Your task to perform on an android device: toggle improve location accuracy Image 0: 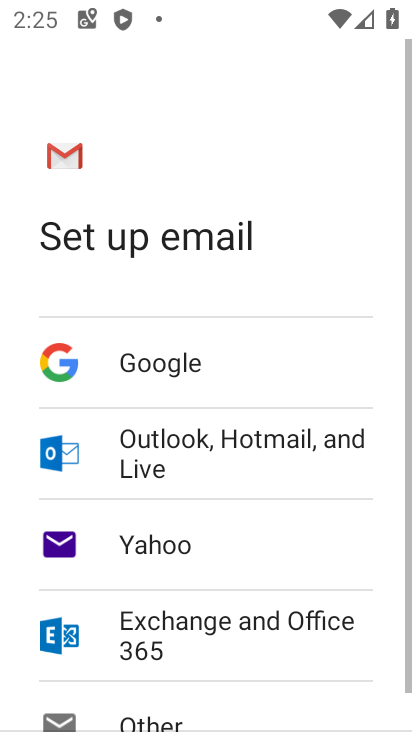
Step 0: press home button
Your task to perform on an android device: toggle improve location accuracy Image 1: 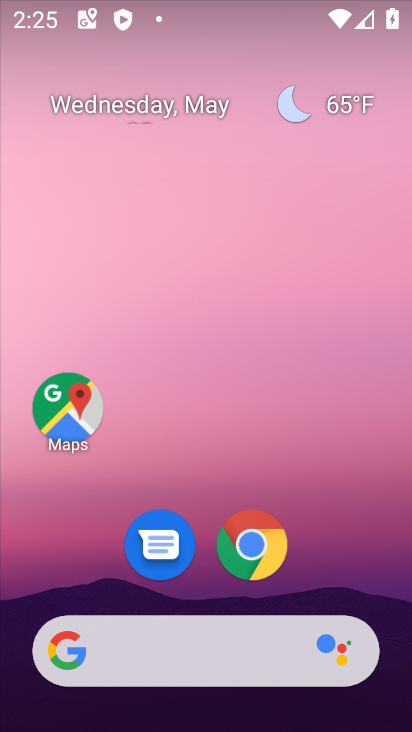
Step 1: drag from (332, 522) to (130, 15)
Your task to perform on an android device: toggle improve location accuracy Image 2: 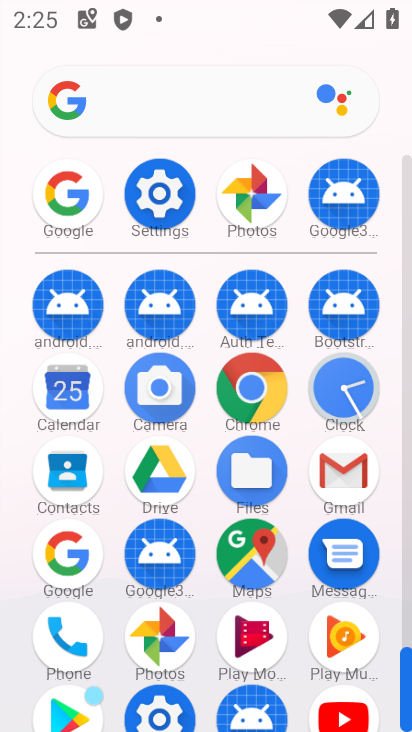
Step 2: click (177, 198)
Your task to perform on an android device: toggle improve location accuracy Image 3: 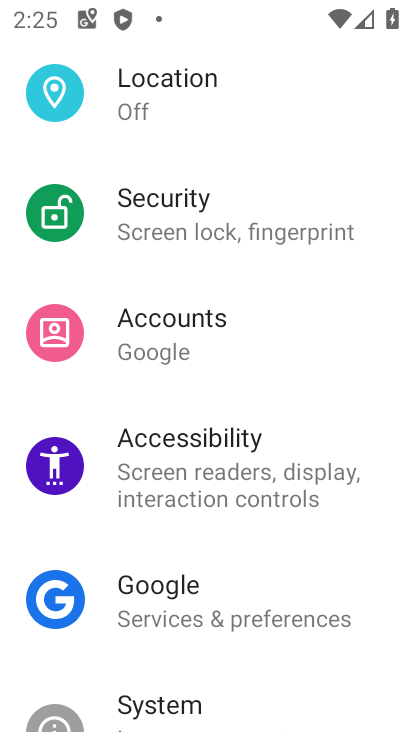
Step 3: click (233, 101)
Your task to perform on an android device: toggle improve location accuracy Image 4: 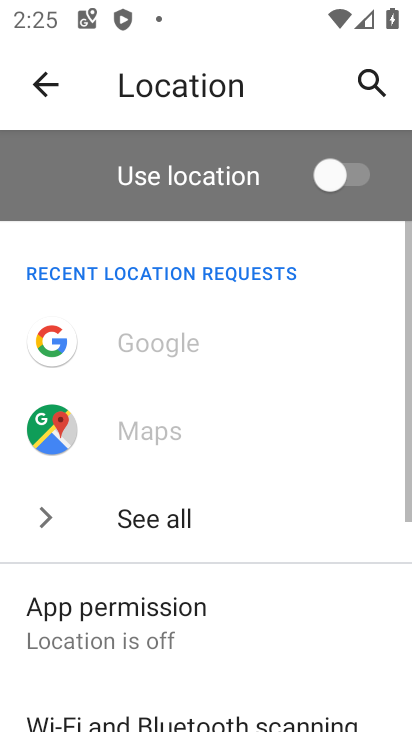
Step 4: drag from (263, 623) to (220, 3)
Your task to perform on an android device: toggle improve location accuracy Image 5: 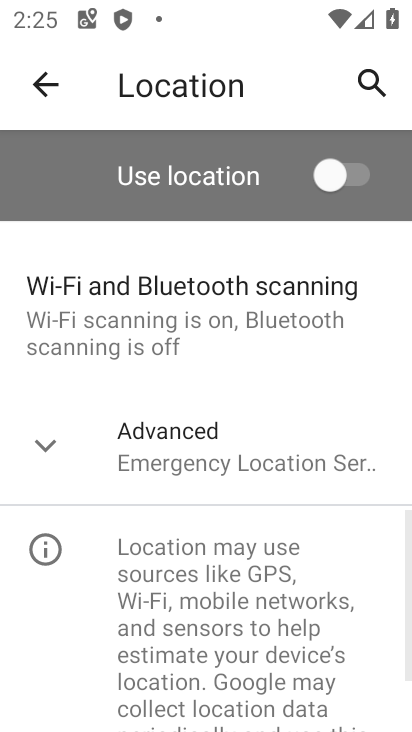
Step 5: click (215, 414)
Your task to perform on an android device: toggle improve location accuracy Image 6: 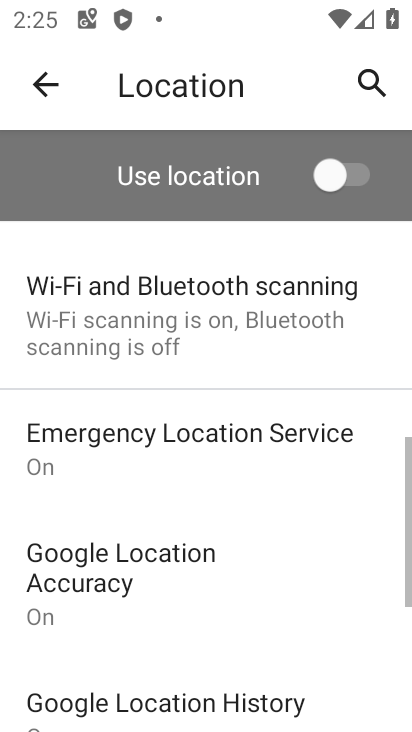
Step 6: drag from (262, 618) to (235, 186)
Your task to perform on an android device: toggle improve location accuracy Image 7: 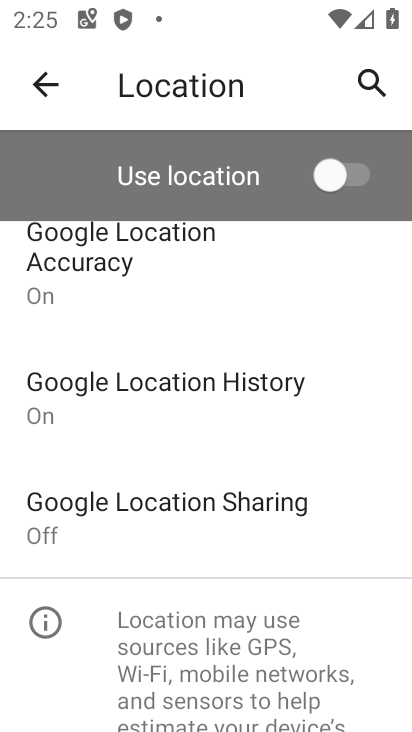
Step 7: click (176, 264)
Your task to perform on an android device: toggle improve location accuracy Image 8: 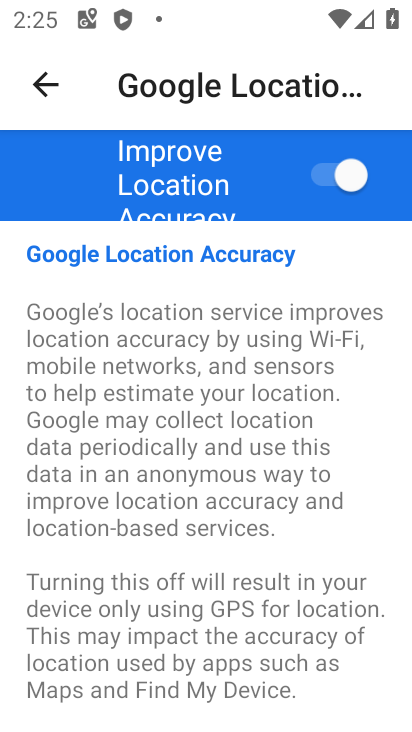
Step 8: click (350, 183)
Your task to perform on an android device: toggle improve location accuracy Image 9: 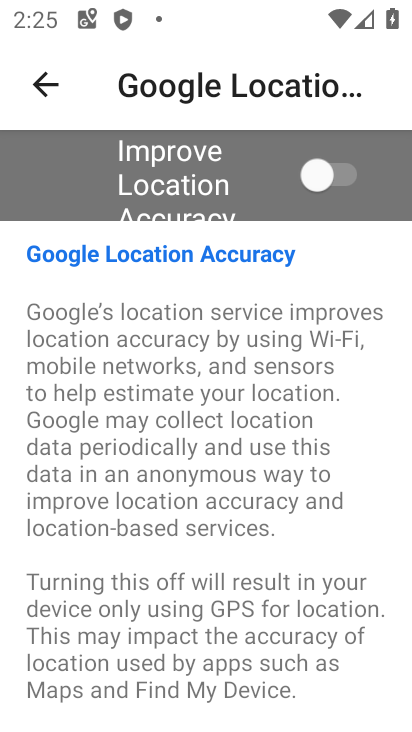
Step 9: task complete